Your task to perform on an android device: open a new tab in the chrome app Image 0: 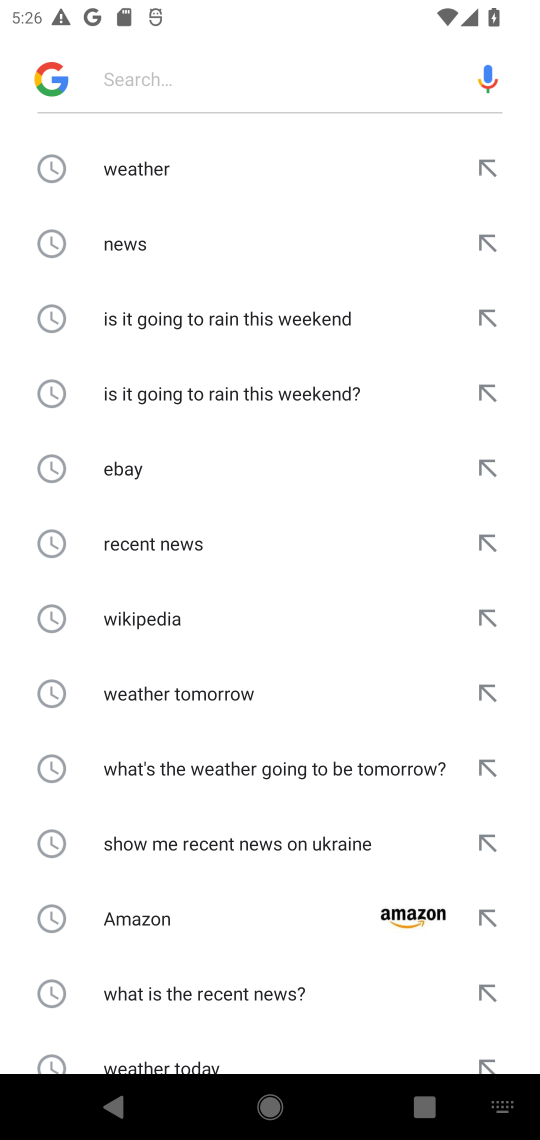
Step 0: task complete